Your task to perform on an android device: Go to location settings Image 0: 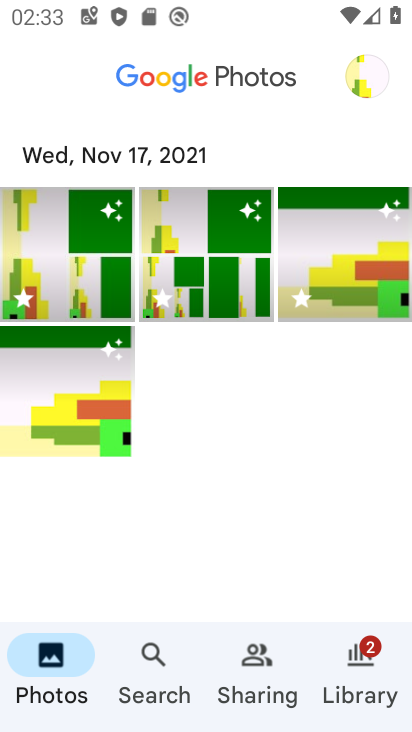
Step 0: press back button
Your task to perform on an android device: Go to location settings Image 1: 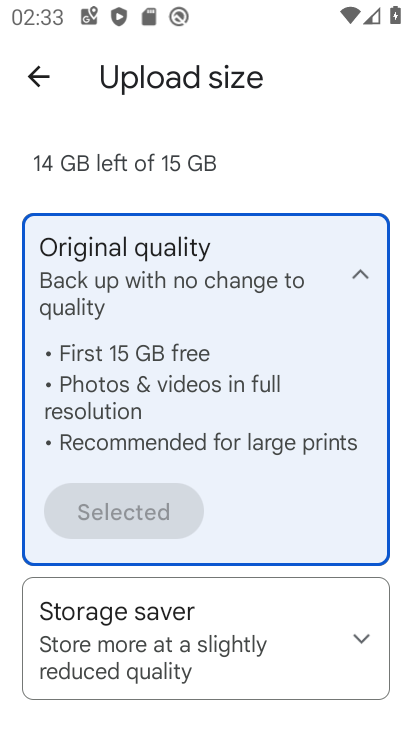
Step 1: press back button
Your task to perform on an android device: Go to location settings Image 2: 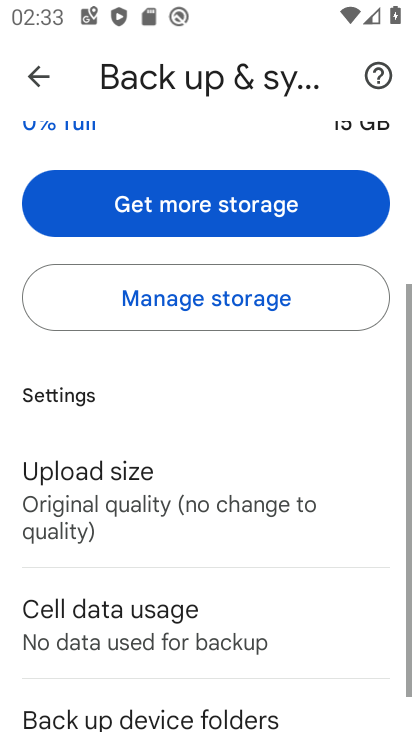
Step 2: press back button
Your task to perform on an android device: Go to location settings Image 3: 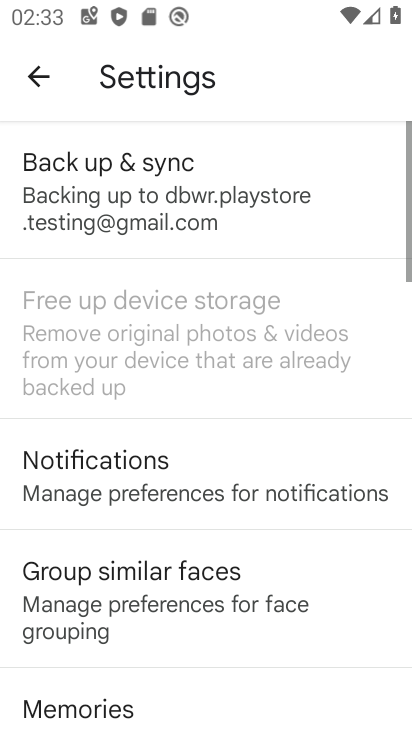
Step 3: press back button
Your task to perform on an android device: Go to location settings Image 4: 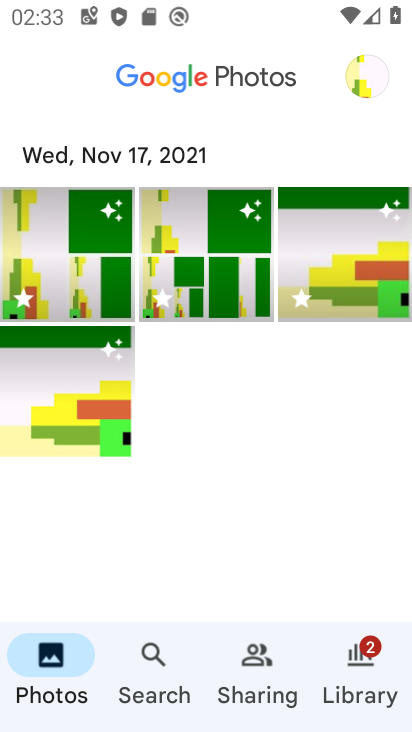
Step 4: press back button
Your task to perform on an android device: Go to location settings Image 5: 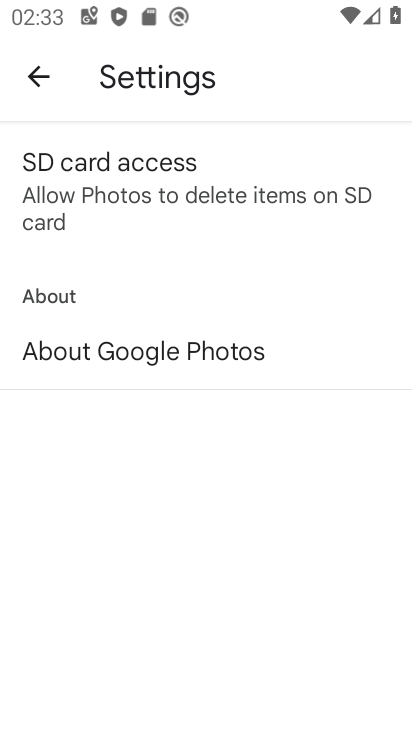
Step 5: press back button
Your task to perform on an android device: Go to location settings Image 6: 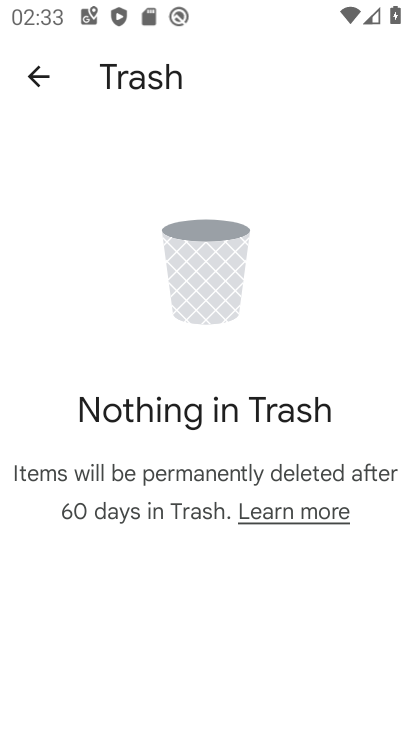
Step 6: press back button
Your task to perform on an android device: Go to location settings Image 7: 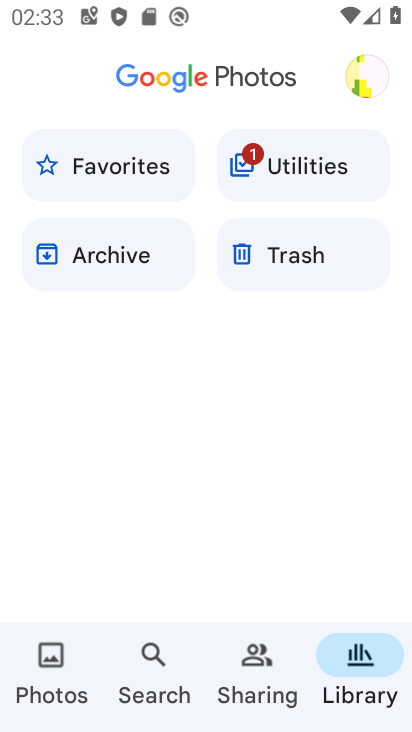
Step 7: press back button
Your task to perform on an android device: Go to location settings Image 8: 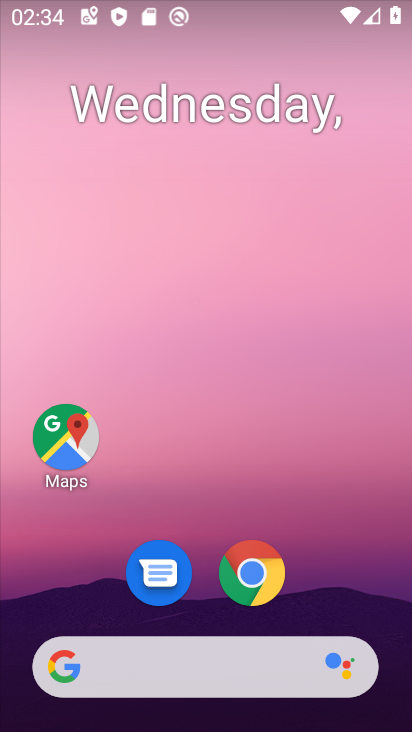
Step 8: drag from (327, 604) to (245, 8)
Your task to perform on an android device: Go to location settings Image 9: 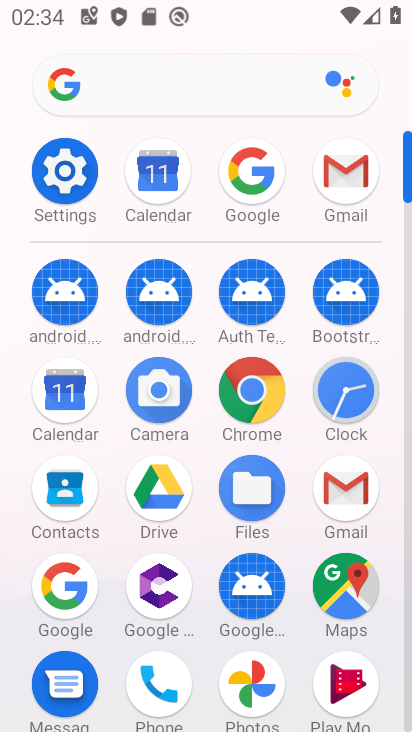
Step 9: click (66, 171)
Your task to perform on an android device: Go to location settings Image 10: 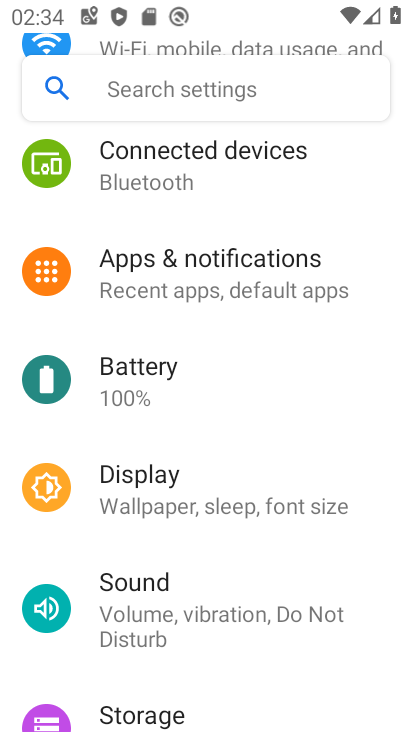
Step 10: drag from (203, 462) to (211, 333)
Your task to perform on an android device: Go to location settings Image 11: 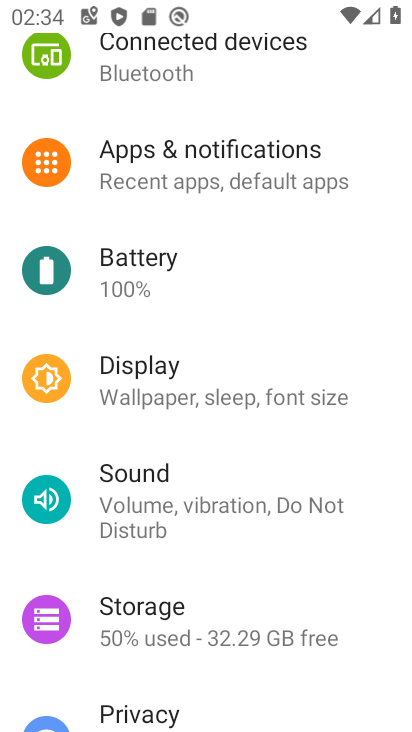
Step 11: drag from (180, 540) to (251, 361)
Your task to perform on an android device: Go to location settings Image 12: 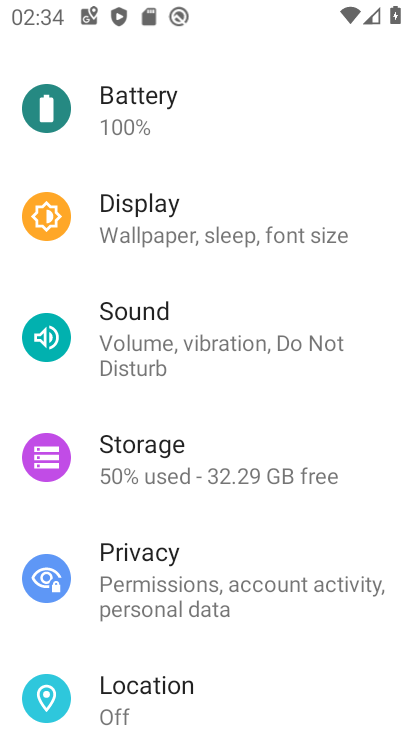
Step 12: drag from (168, 637) to (248, 433)
Your task to perform on an android device: Go to location settings Image 13: 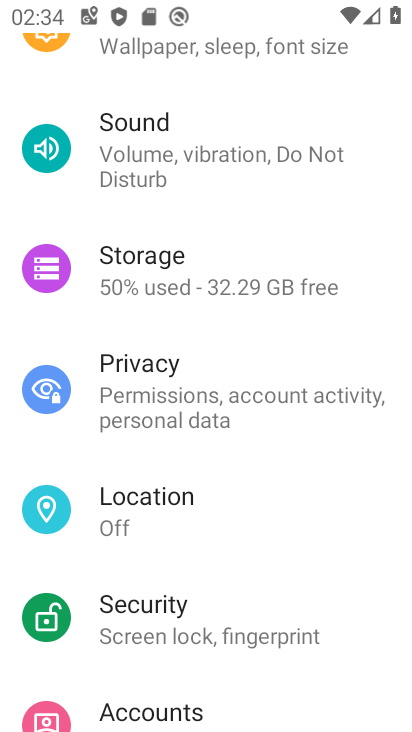
Step 13: click (145, 497)
Your task to perform on an android device: Go to location settings Image 14: 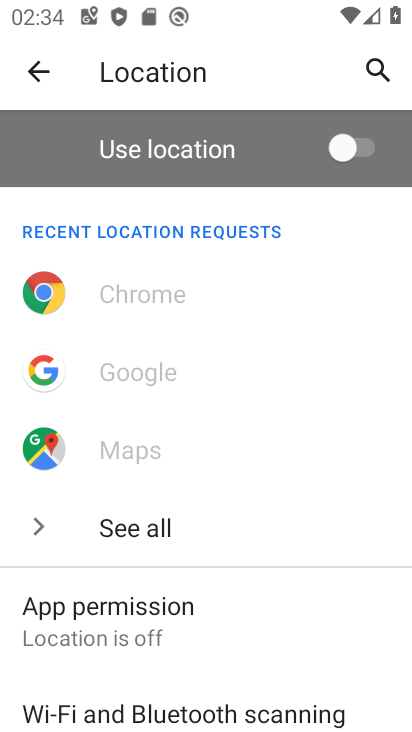
Step 14: task complete